Your task to perform on an android device: Find coffee shops on Maps Image 0: 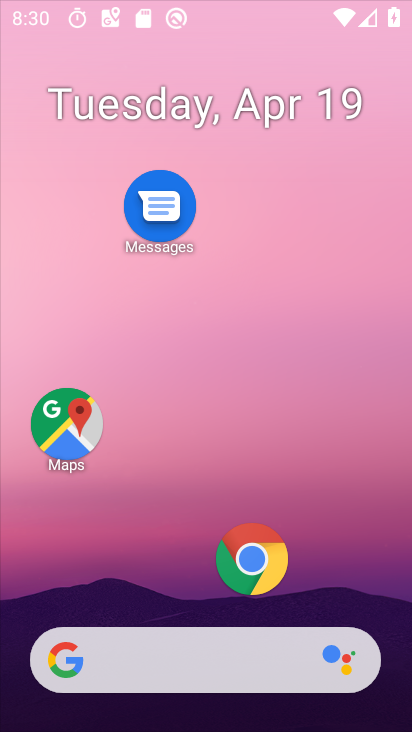
Step 0: click (195, 313)
Your task to perform on an android device: Find coffee shops on Maps Image 1: 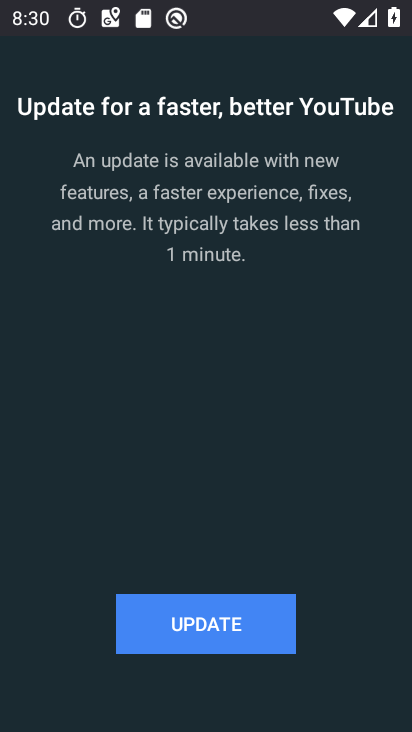
Step 1: press back button
Your task to perform on an android device: Find coffee shops on Maps Image 2: 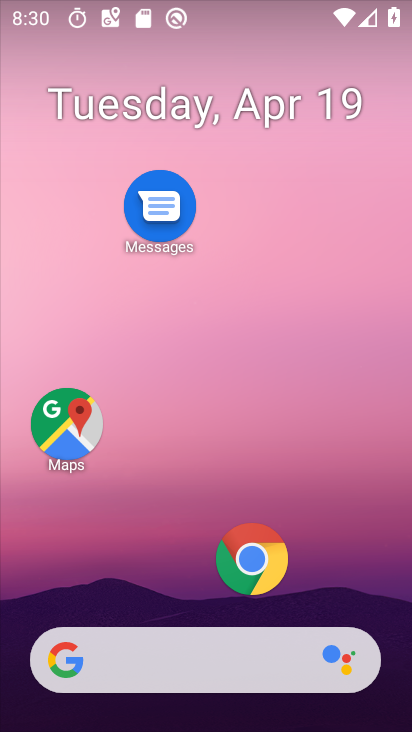
Step 2: click (69, 427)
Your task to perform on an android device: Find coffee shops on Maps Image 3: 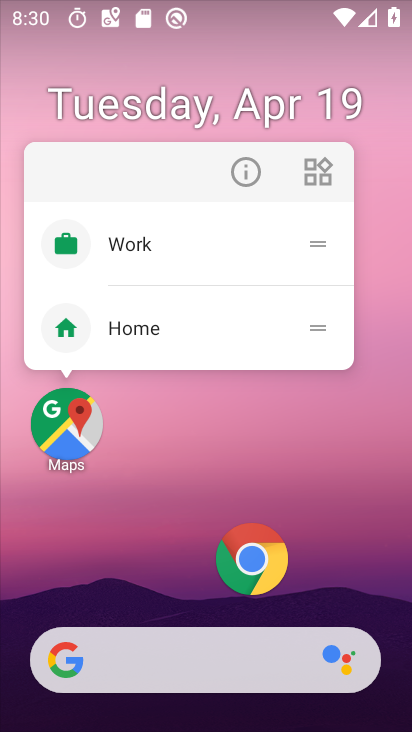
Step 3: click (58, 429)
Your task to perform on an android device: Find coffee shops on Maps Image 4: 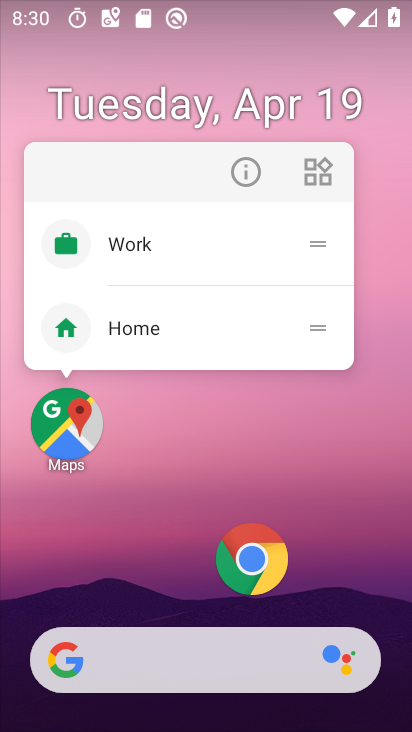
Step 4: click (76, 428)
Your task to perform on an android device: Find coffee shops on Maps Image 5: 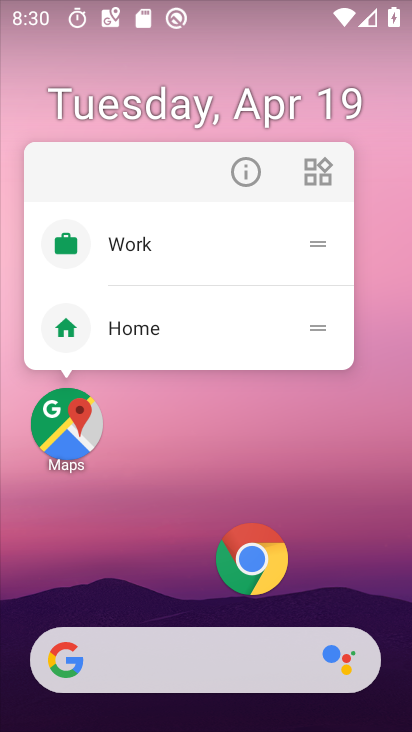
Step 5: click (76, 428)
Your task to perform on an android device: Find coffee shops on Maps Image 6: 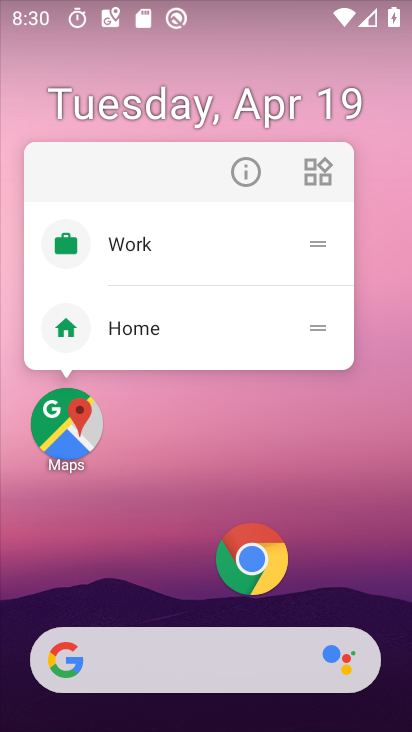
Step 6: click (76, 428)
Your task to perform on an android device: Find coffee shops on Maps Image 7: 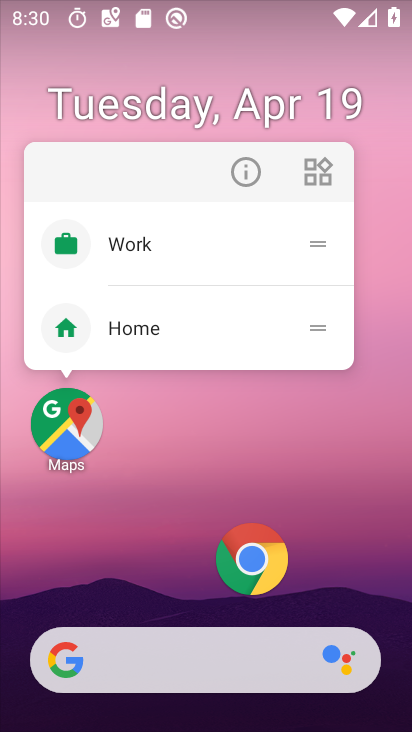
Step 7: click (76, 428)
Your task to perform on an android device: Find coffee shops on Maps Image 8: 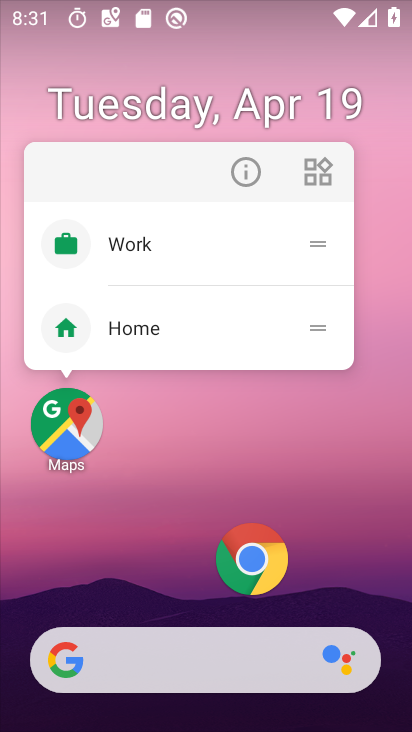
Step 8: click (76, 428)
Your task to perform on an android device: Find coffee shops on Maps Image 9: 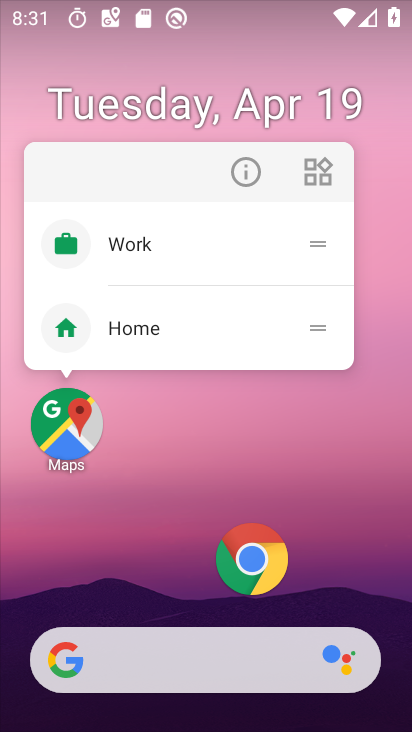
Step 9: click (76, 428)
Your task to perform on an android device: Find coffee shops on Maps Image 10: 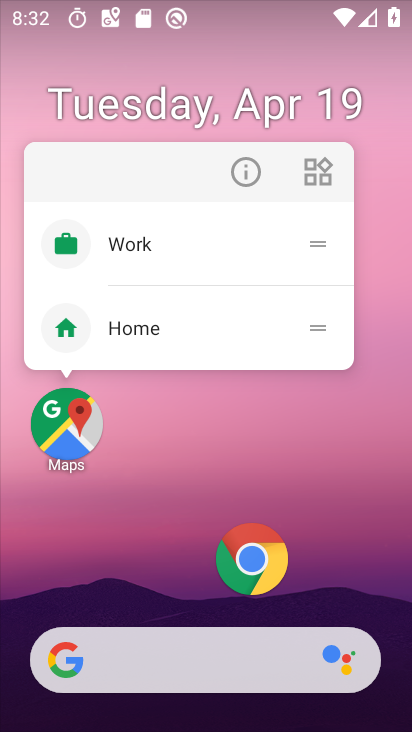
Step 10: click (67, 427)
Your task to perform on an android device: Find coffee shops on Maps Image 11: 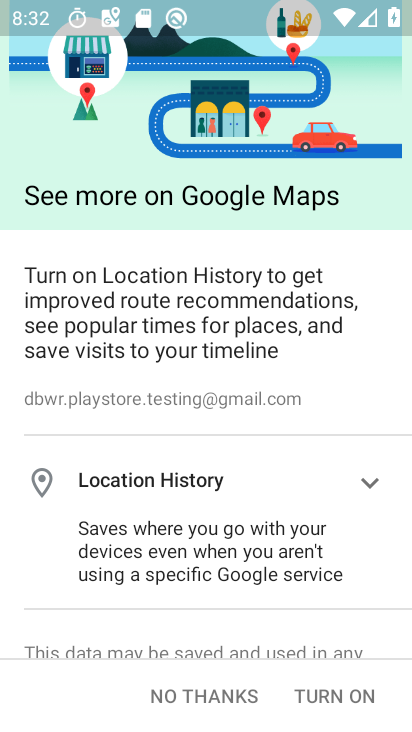
Step 11: click (328, 693)
Your task to perform on an android device: Find coffee shops on Maps Image 12: 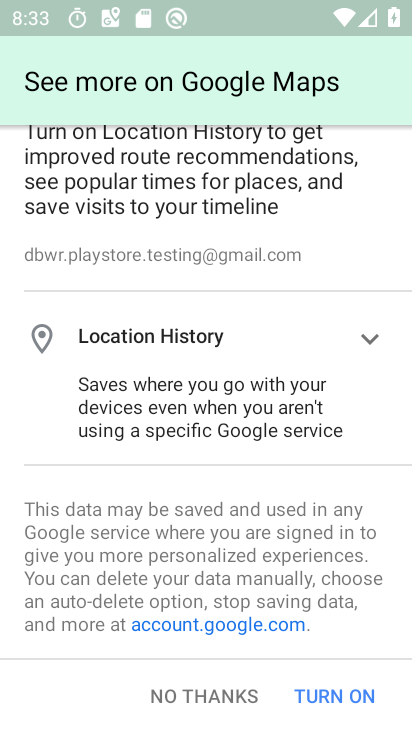
Step 12: click (321, 694)
Your task to perform on an android device: Find coffee shops on Maps Image 13: 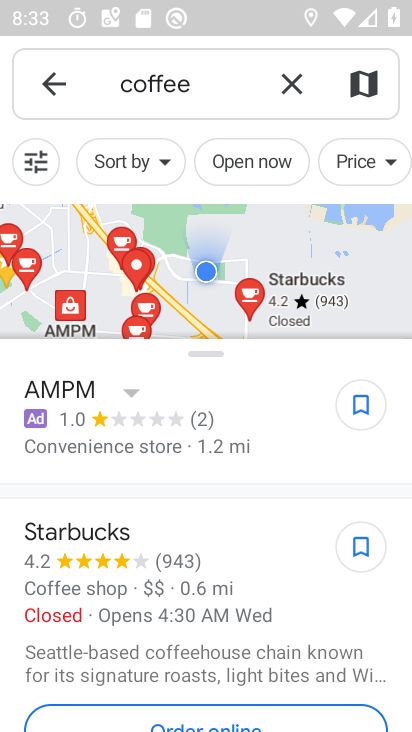
Step 13: task complete